Your task to perform on an android device: turn off data saver in the chrome app Image 0: 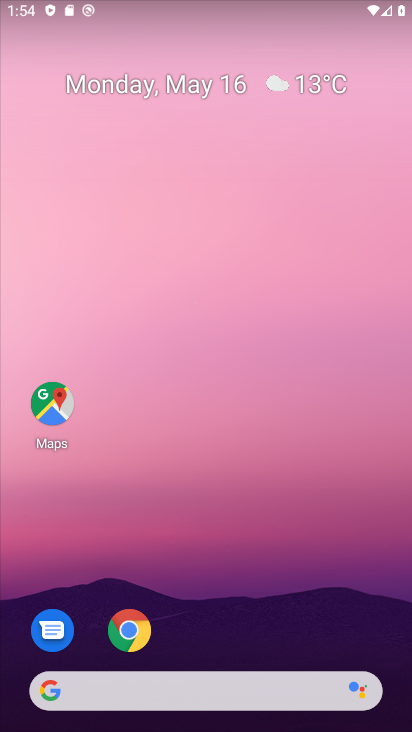
Step 0: click (143, 632)
Your task to perform on an android device: turn off data saver in the chrome app Image 1: 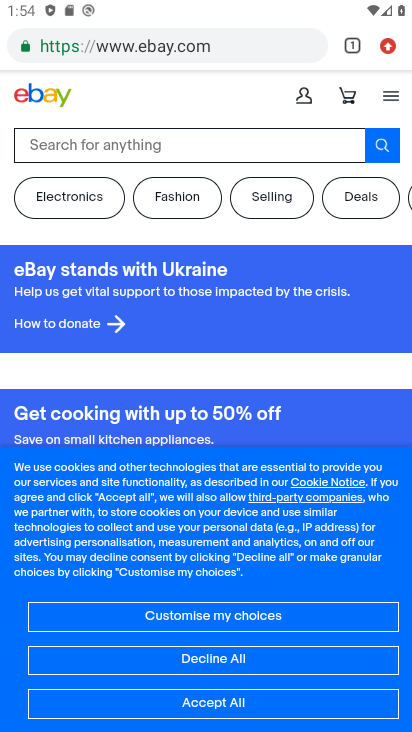
Step 1: click (389, 49)
Your task to perform on an android device: turn off data saver in the chrome app Image 2: 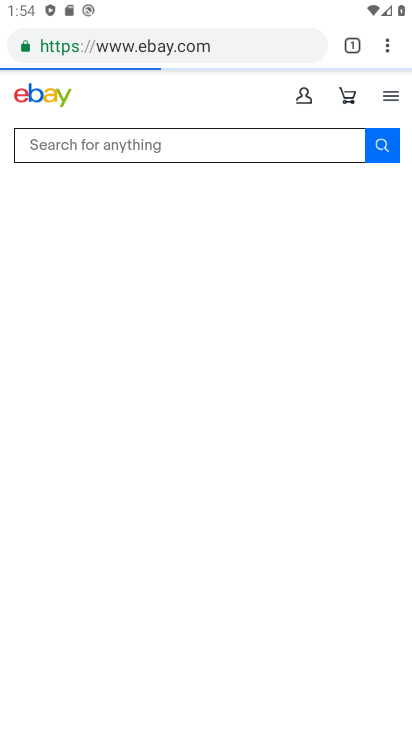
Step 2: drag from (389, 49) to (256, 612)
Your task to perform on an android device: turn off data saver in the chrome app Image 3: 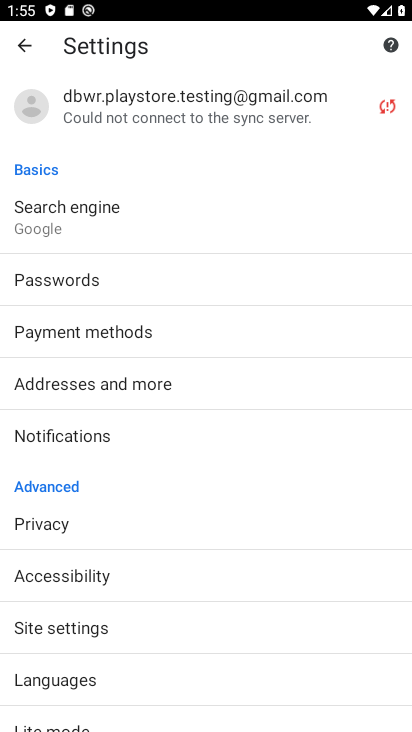
Step 3: drag from (106, 696) to (142, 462)
Your task to perform on an android device: turn off data saver in the chrome app Image 4: 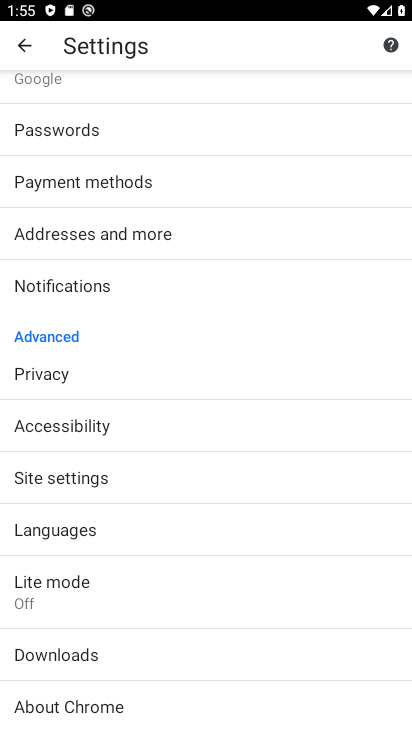
Step 4: click (91, 602)
Your task to perform on an android device: turn off data saver in the chrome app Image 5: 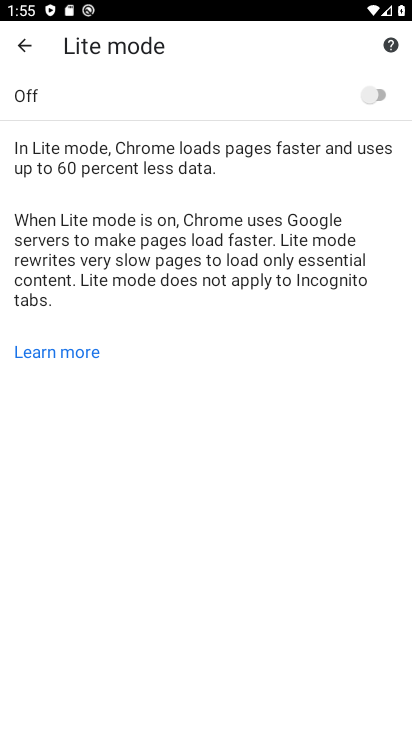
Step 5: task complete